Your task to perform on an android device: See recent photos Image 0: 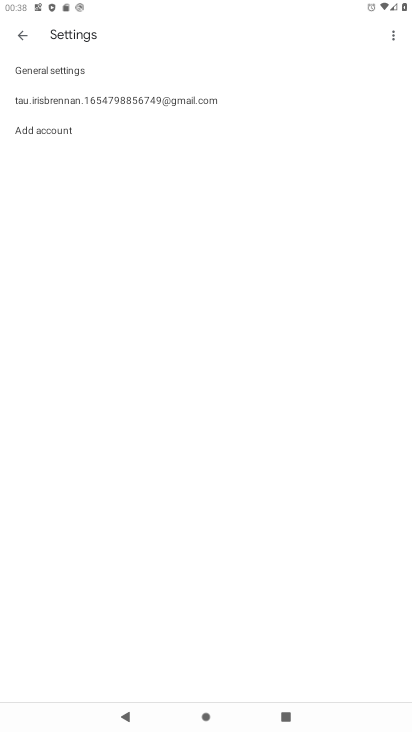
Step 0: press home button
Your task to perform on an android device: See recent photos Image 1: 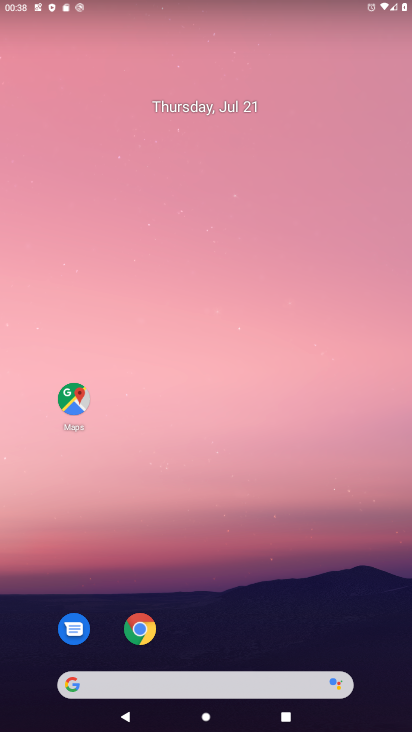
Step 1: drag from (276, 521) to (222, 142)
Your task to perform on an android device: See recent photos Image 2: 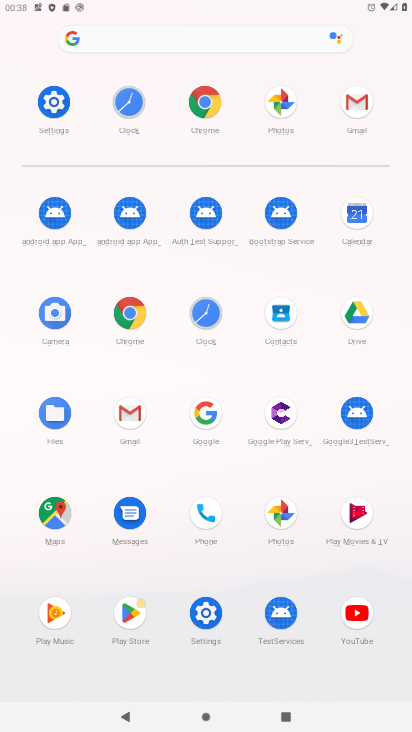
Step 2: click (281, 511)
Your task to perform on an android device: See recent photos Image 3: 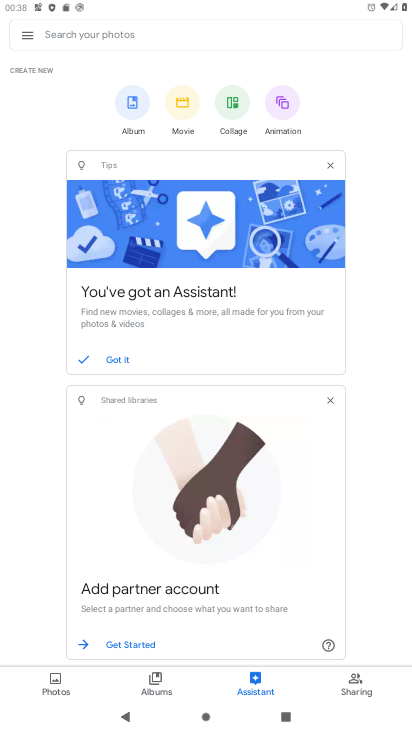
Step 3: click (46, 677)
Your task to perform on an android device: See recent photos Image 4: 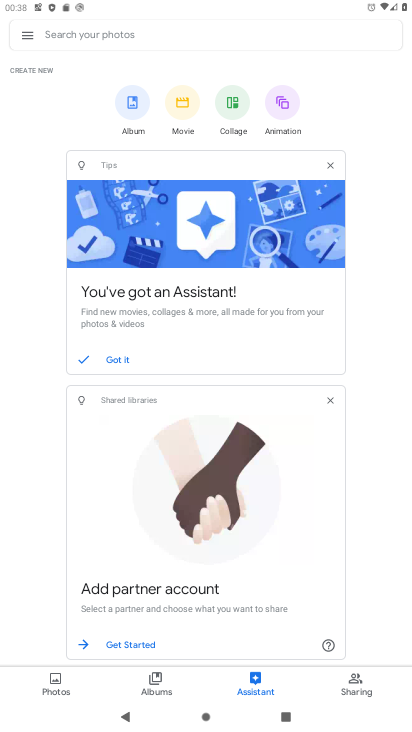
Step 4: click (60, 681)
Your task to perform on an android device: See recent photos Image 5: 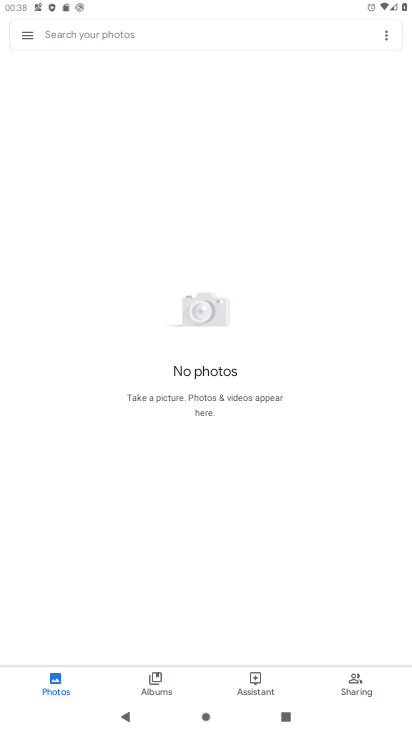
Step 5: task complete